Your task to perform on an android device: Open Chrome and go to the settings page Image 0: 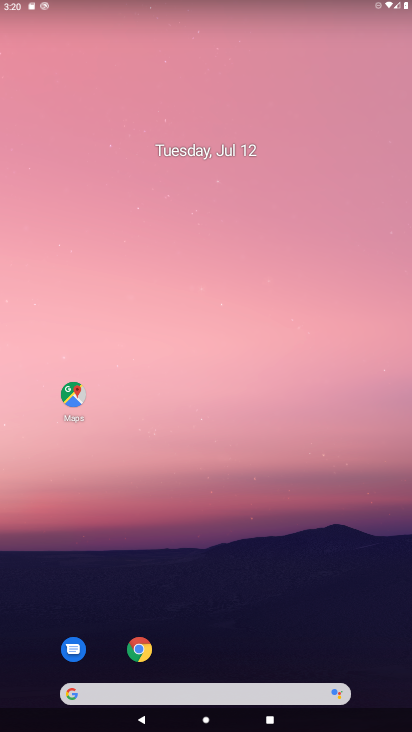
Step 0: click (146, 646)
Your task to perform on an android device: Open Chrome and go to the settings page Image 1: 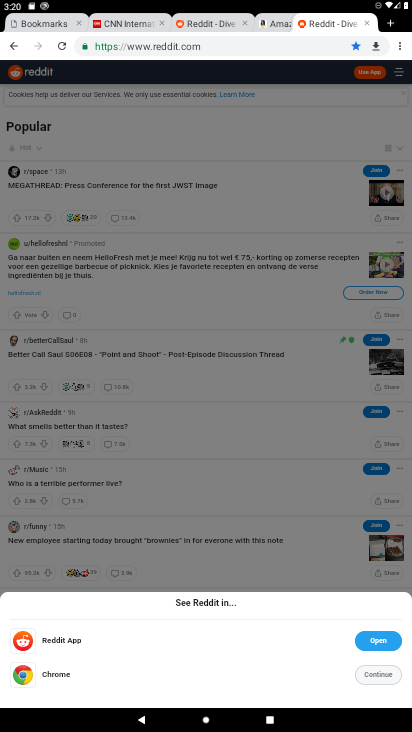
Step 1: click (397, 57)
Your task to perform on an android device: Open Chrome and go to the settings page Image 2: 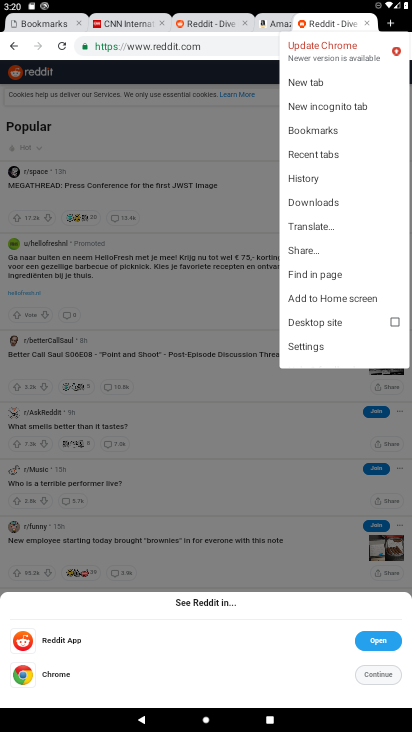
Step 2: click (302, 344)
Your task to perform on an android device: Open Chrome and go to the settings page Image 3: 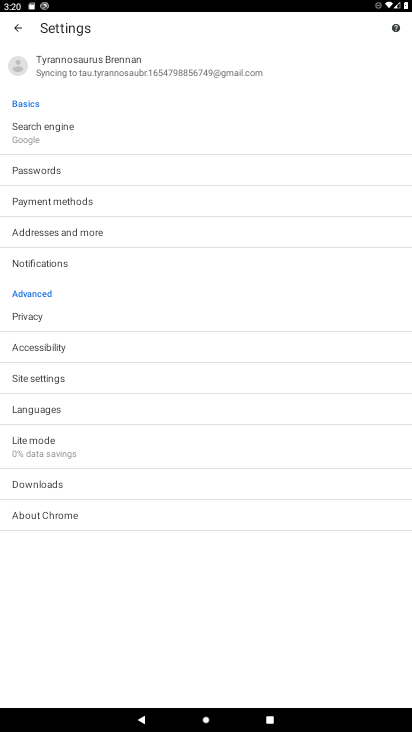
Step 3: task complete